Your task to perform on an android device: add a contact in the contacts app Image 0: 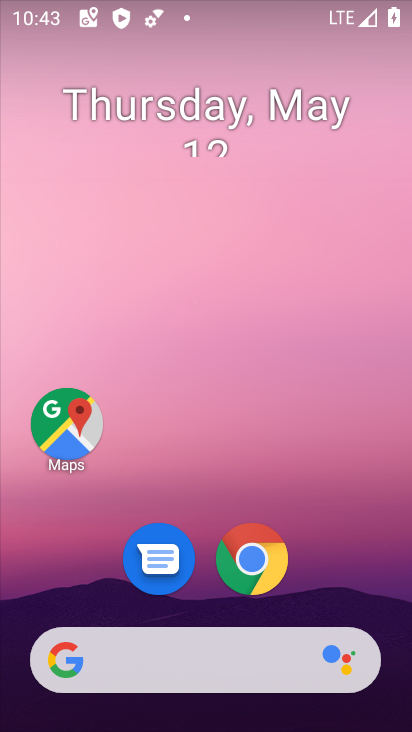
Step 0: drag from (200, 613) to (198, 135)
Your task to perform on an android device: add a contact in the contacts app Image 1: 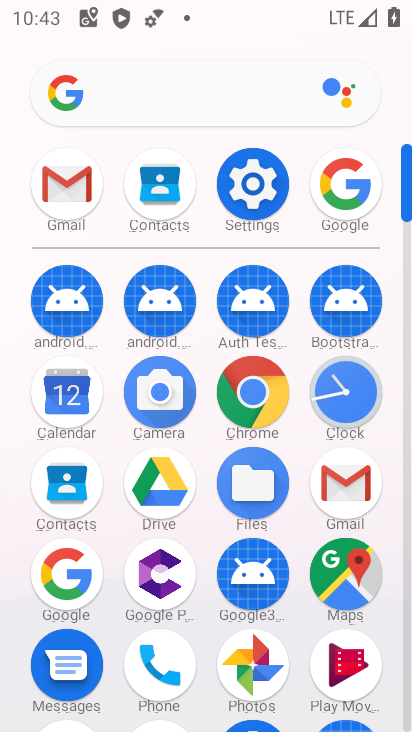
Step 1: click (52, 476)
Your task to perform on an android device: add a contact in the contacts app Image 2: 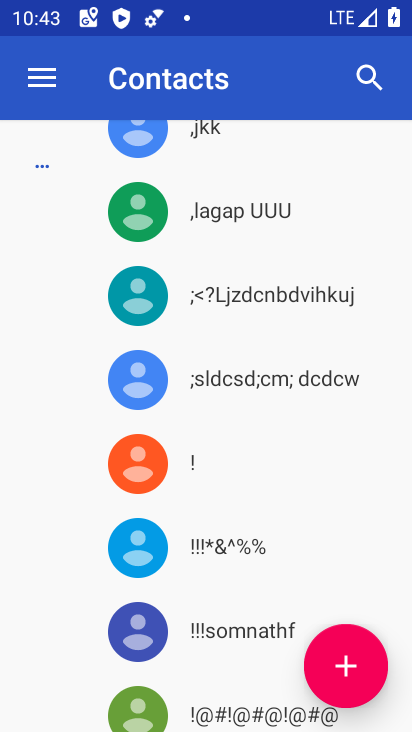
Step 2: click (371, 680)
Your task to perform on an android device: add a contact in the contacts app Image 3: 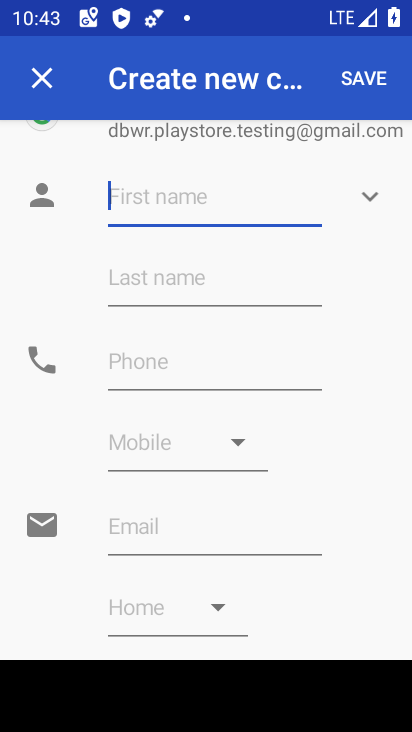
Step 3: type "dfgndf"
Your task to perform on an android device: add a contact in the contacts app Image 4: 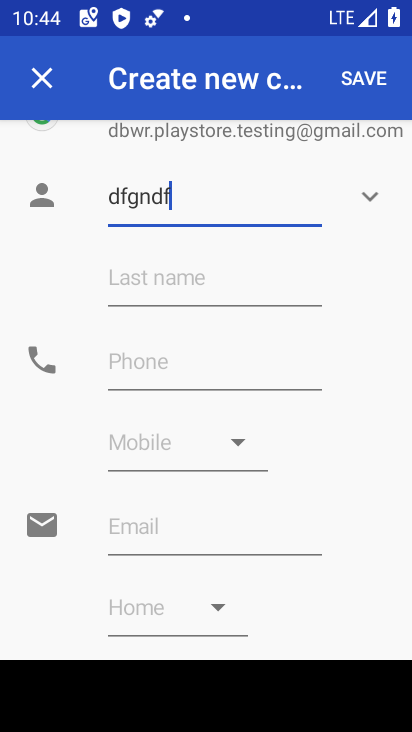
Step 4: click (148, 368)
Your task to perform on an android device: add a contact in the contacts app Image 5: 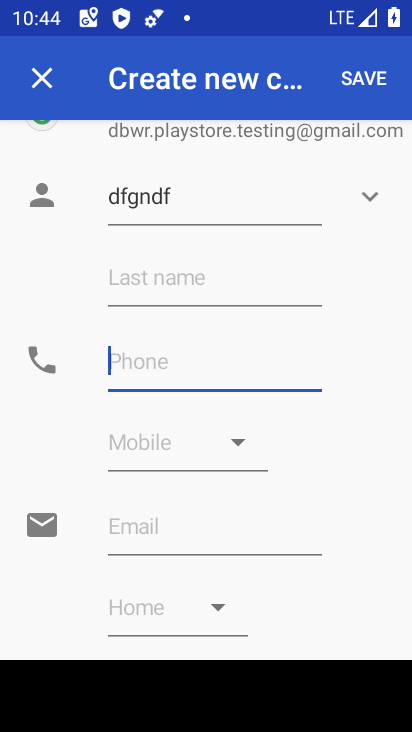
Step 5: type "976987986789"
Your task to perform on an android device: add a contact in the contacts app Image 6: 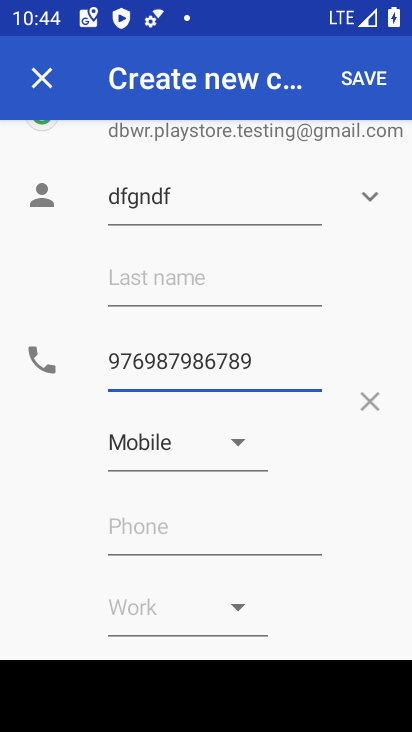
Step 6: click (360, 85)
Your task to perform on an android device: add a contact in the contacts app Image 7: 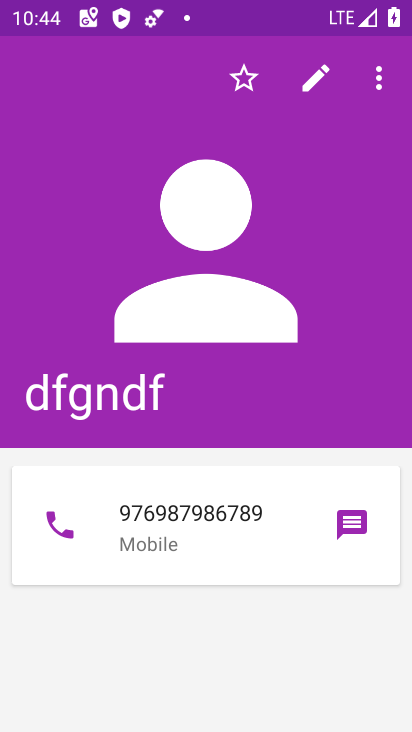
Step 7: task complete